Your task to perform on an android device: Go to Android settings Image 0: 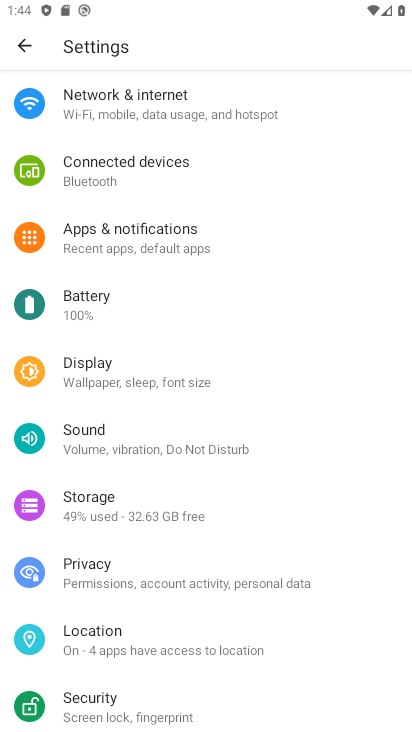
Step 0: press home button
Your task to perform on an android device: Go to Android settings Image 1: 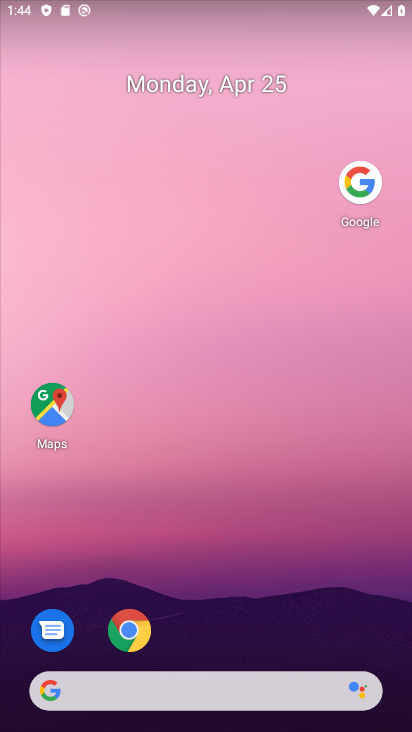
Step 1: drag from (207, 651) to (289, 68)
Your task to perform on an android device: Go to Android settings Image 2: 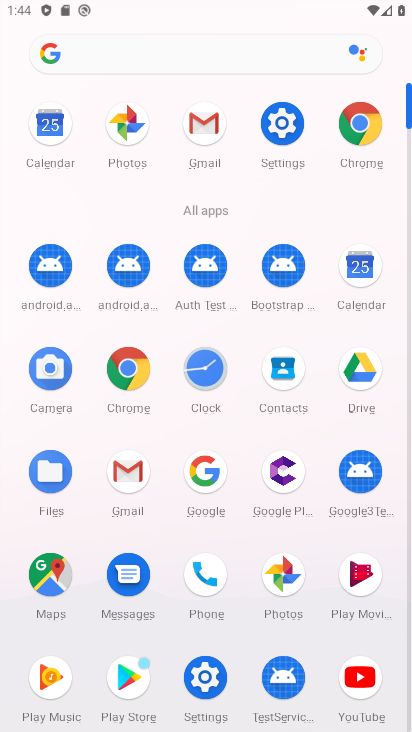
Step 2: click (273, 140)
Your task to perform on an android device: Go to Android settings Image 3: 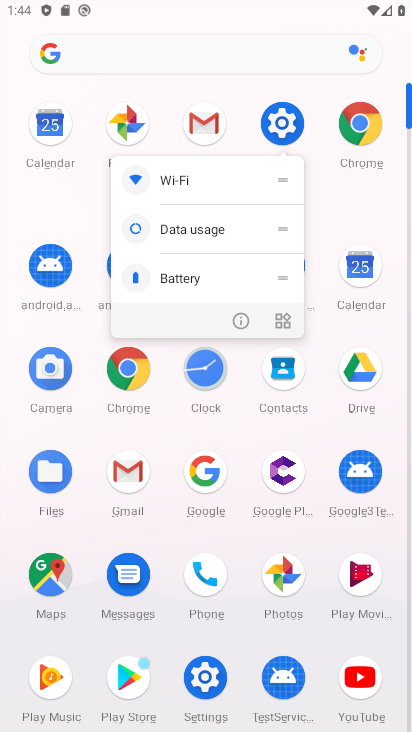
Step 3: click (274, 128)
Your task to perform on an android device: Go to Android settings Image 4: 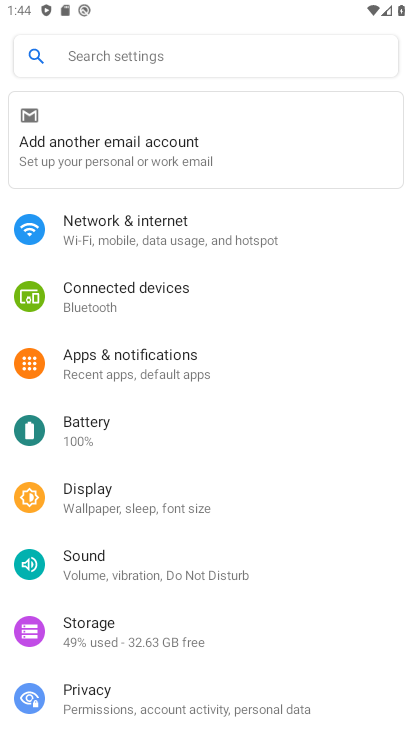
Step 4: task complete